Your task to perform on an android device: Check the news Image 0: 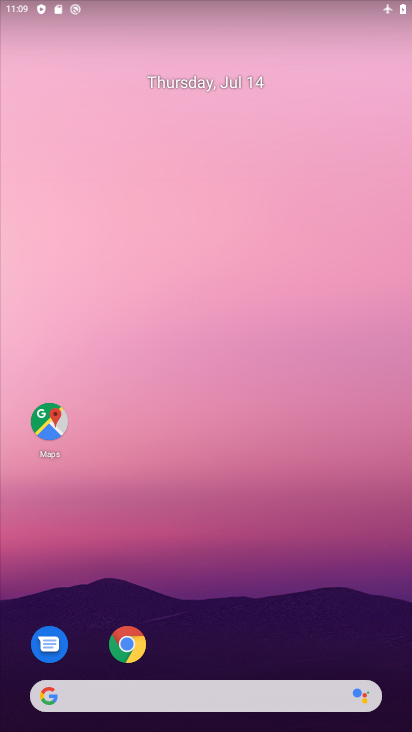
Step 0: drag from (3, 226) to (411, 369)
Your task to perform on an android device: Check the news Image 1: 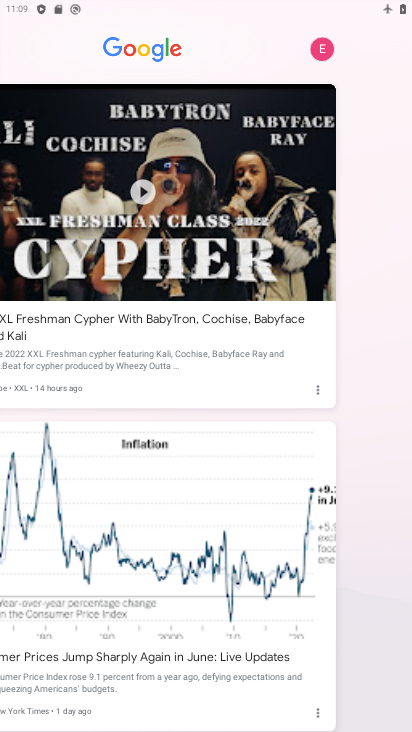
Step 1: task complete